Your task to perform on an android device: turn on airplane mode Image 0: 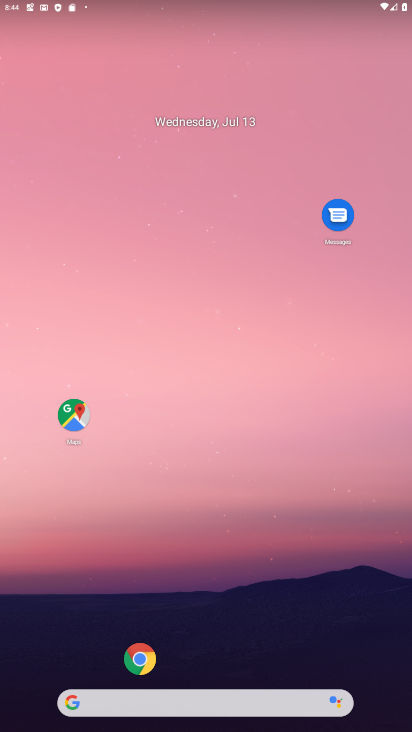
Step 0: click (89, 76)
Your task to perform on an android device: turn on airplane mode Image 1: 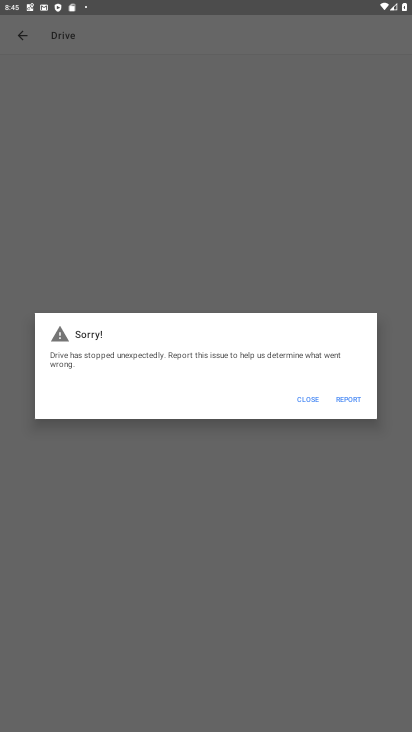
Step 1: press home button
Your task to perform on an android device: turn on airplane mode Image 2: 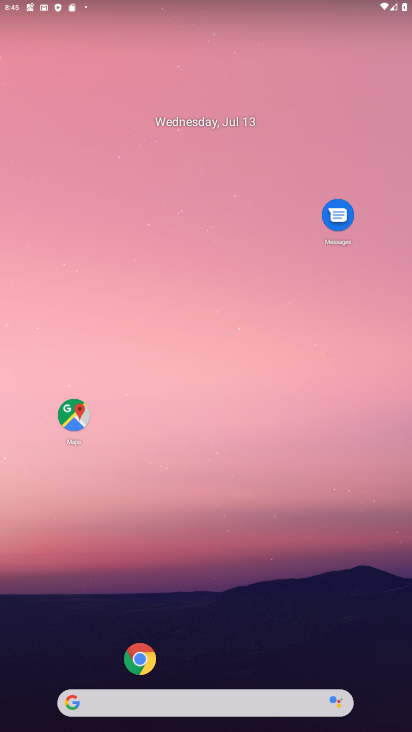
Step 2: drag from (23, 669) to (172, 76)
Your task to perform on an android device: turn on airplane mode Image 3: 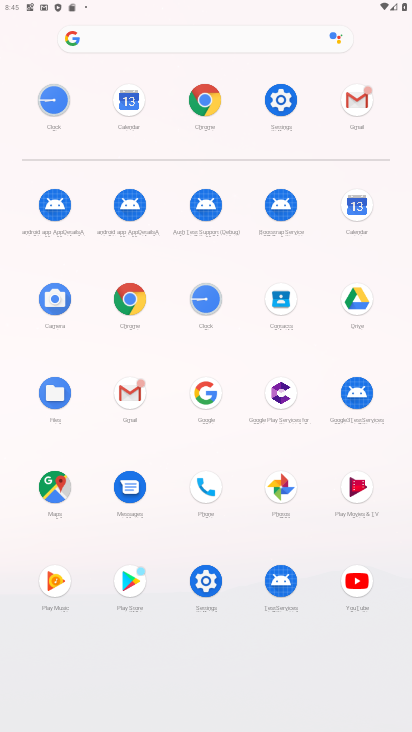
Step 3: click (214, 580)
Your task to perform on an android device: turn on airplane mode Image 4: 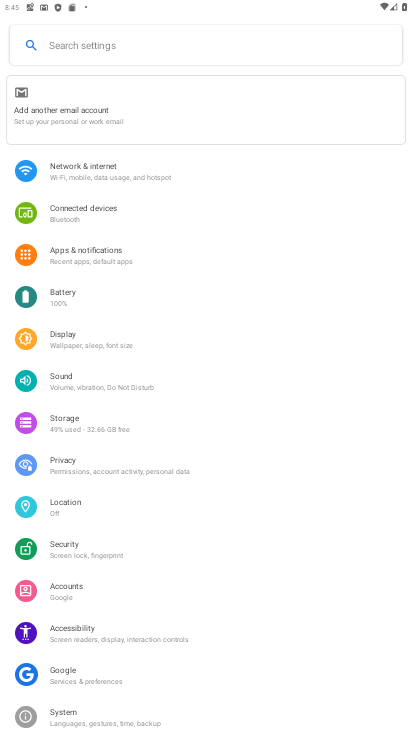
Step 4: click (115, 150)
Your task to perform on an android device: turn on airplane mode Image 5: 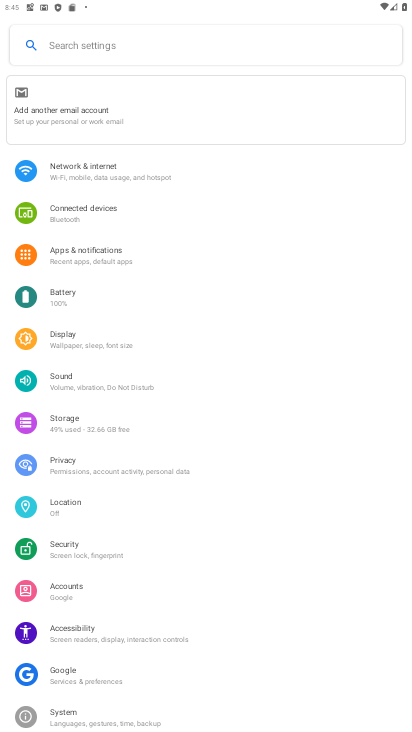
Step 5: click (115, 160)
Your task to perform on an android device: turn on airplane mode Image 6: 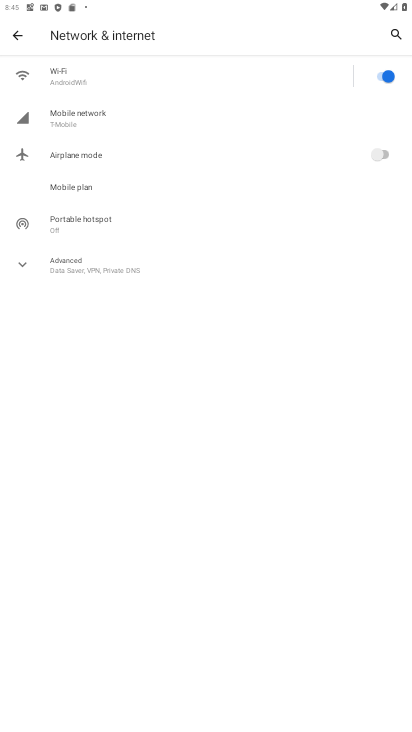
Step 6: click (377, 152)
Your task to perform on an android device: turn on airplane mode Image 7: 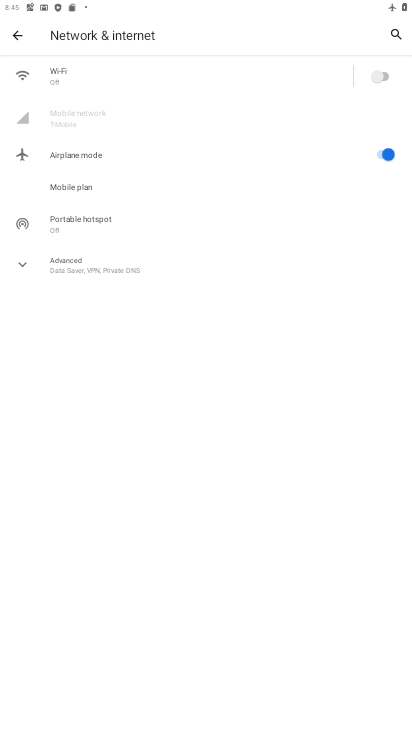
Step 7: task complete